Your task to perform on an android device: change your default location settings in chrome Image 0: 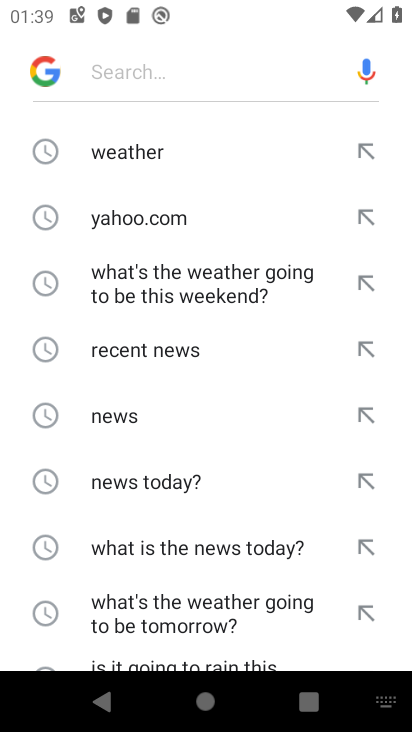
Step 0: press home button
Your task to perform on an android device: change your default location settings in chrome Image 1: 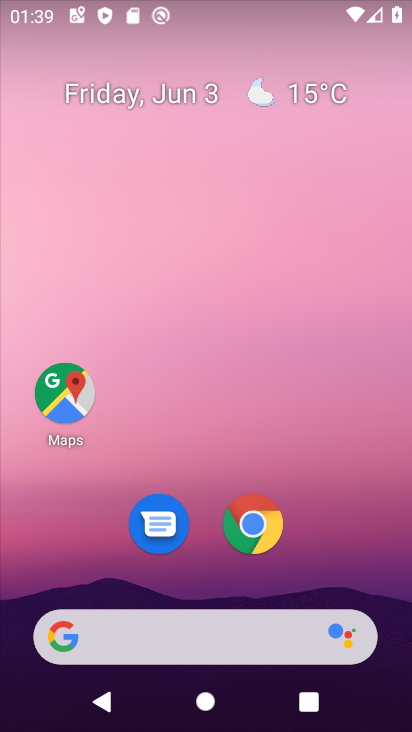
Step 1: click (269, 523)
Your task to perform on an android device: change your default location settings in chrome Image 2: 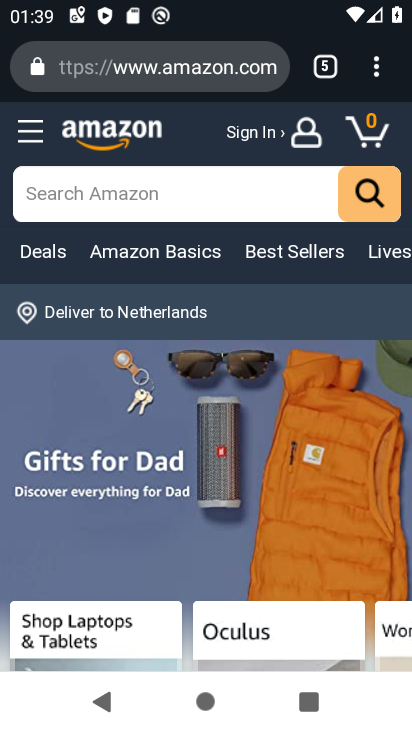
Step 2: click (375, 82)
Your task to perform on an android device: change your default location settings in chrome Image 3: 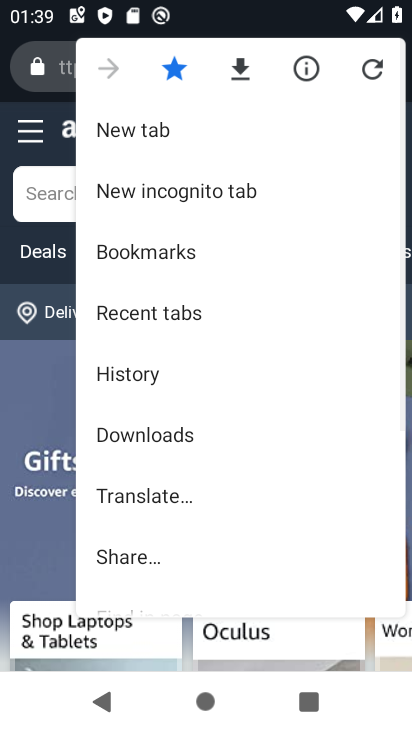
Step 3: drag from (219, 525) to (228, 236)
Your task to perform on an android device: change your default location settings in chrome Image 4: 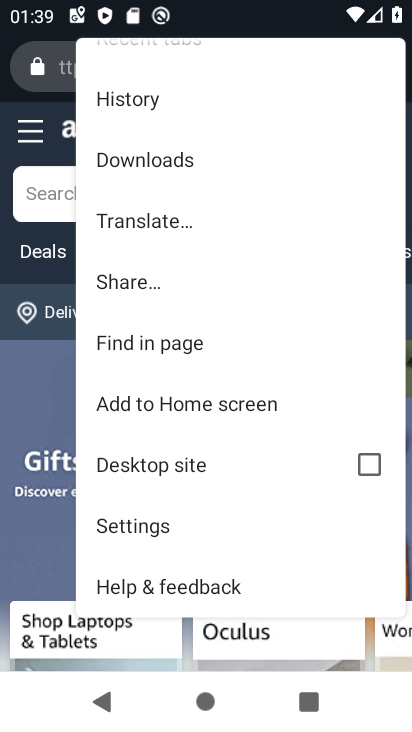
Step 4: click (206, 514)
Your task to perform on an android device: change your default location settings in chrome Image 5: 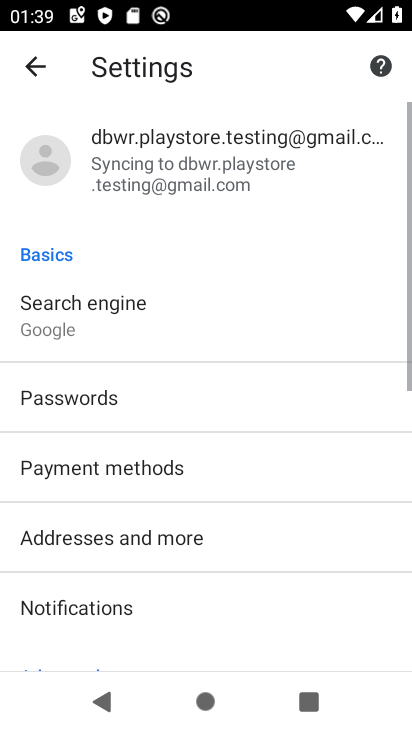
Step 5: drag from (262, 459) to (289, 42)
Your task to perform on an android device: change your default location settings in chrome Image 6: 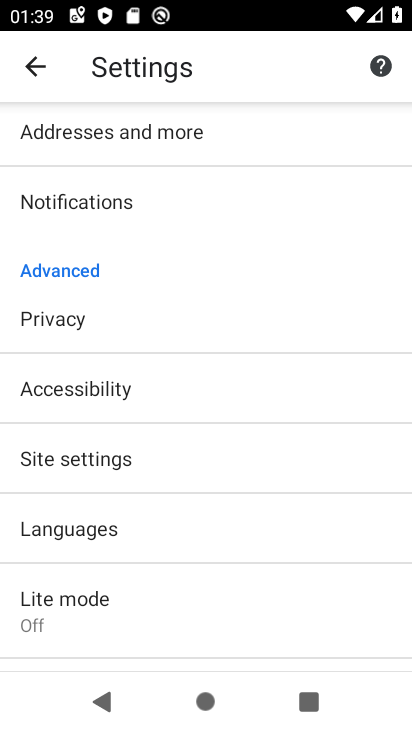
Step 6: click (216, 458)
Your task to perform on an android device: change your default location settings in chrome Image 7: 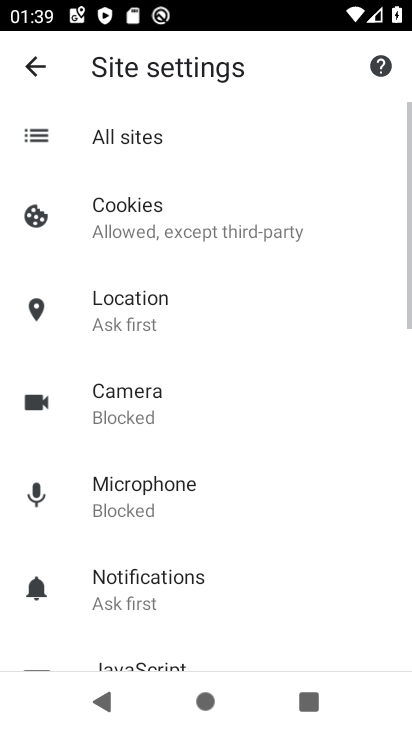
Step 7: click (202, 323)
Your task to perform on an android device: change your default location settings in chrome Image 8: 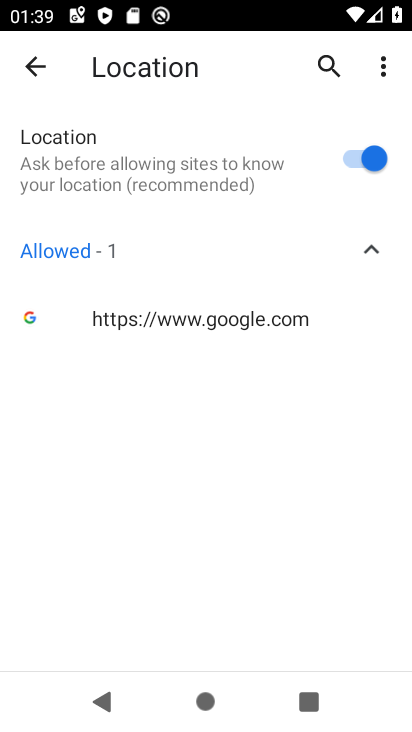
Step 8: click (355, 146)
Your task to perform on an android device: change your default location settings in chrome Image 9: 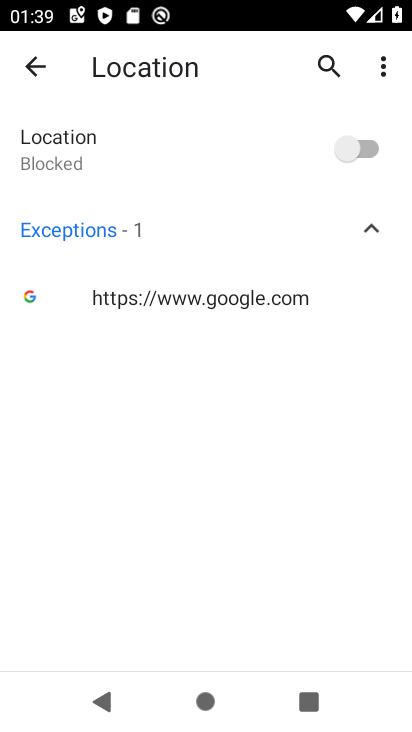
Step 9: task complete